Your task to perform on an android device: Do I have any events today? Image 0: 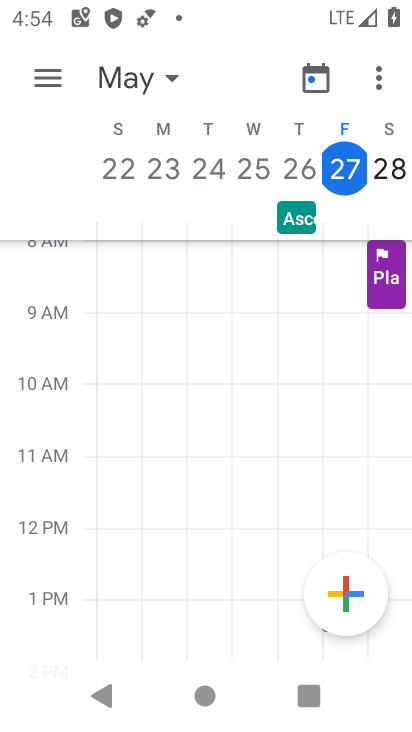
Step 0: press home button
Your task to perform on an android device: Do I have any events today? Image 1: 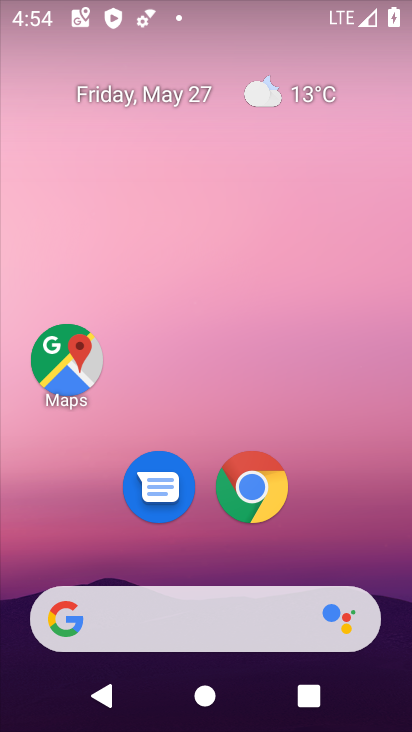
Step 1: drag from (371, 541) to (338, 175)
Your task to perform on an android device: Do I have any events today? Image 2: 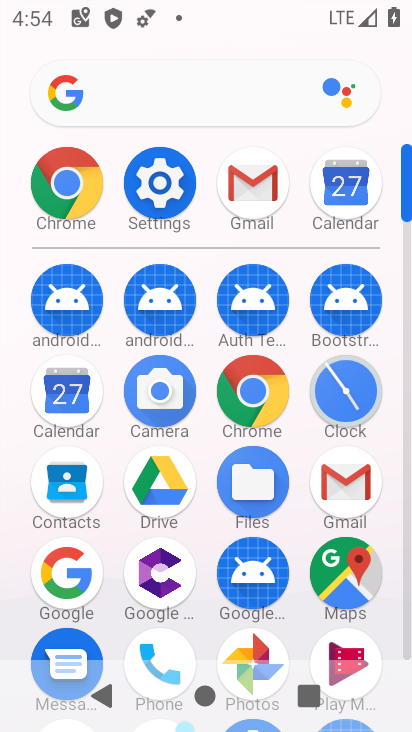
Step 2: click (68, 393)
Your task to perform on an android device: Do I have any events today? Image 3: 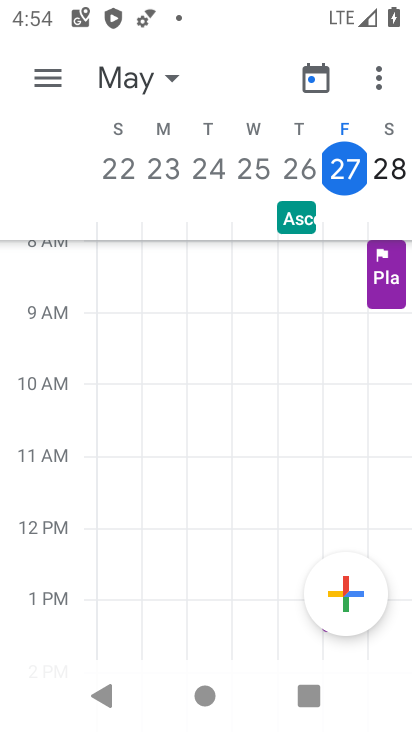
Step 3: task complete